Your task to perform on an android device: When is my next appointment? Image 0: 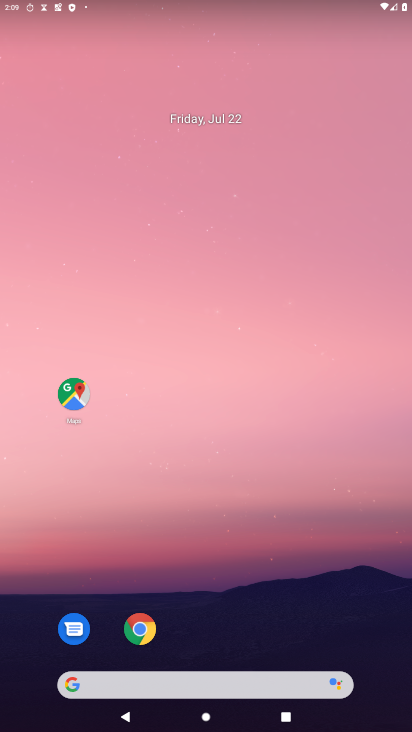
Step 0: drag from (172, 682) to (222, 56)
Your task to perform on an android device: When is my next appointment? Image 1: 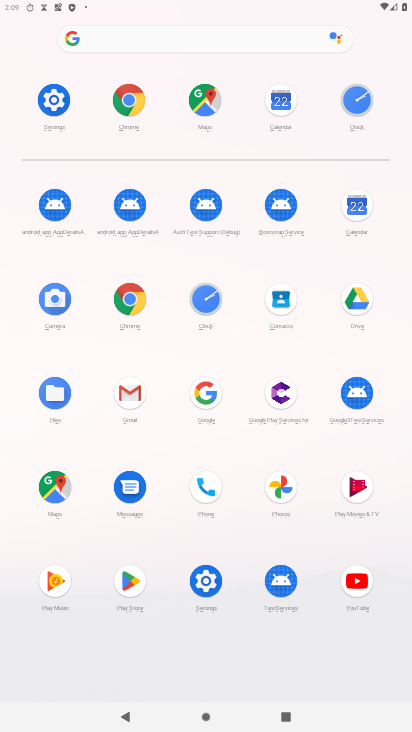
Step 1: click (352, 201)
Your task to perform on an android device: When is my next appointment? Image 2: 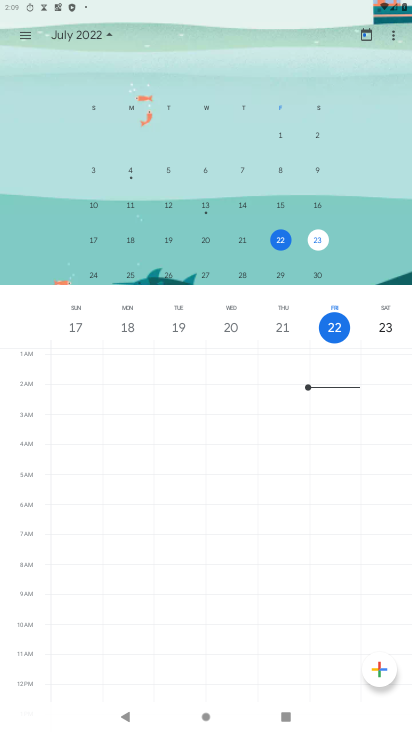
Step 2: task complete